Your task to perform on an android device: toggle notification dots Image 0: 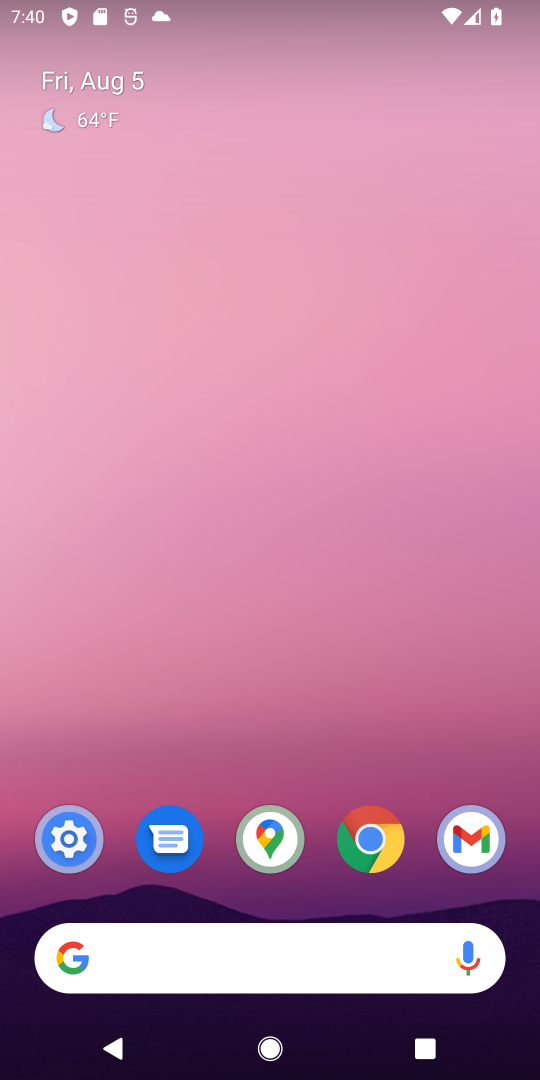
Step 0: drag from (324, 757) to (283, 185)
Your task to perform on an android device: toggle notification dots Image 1: 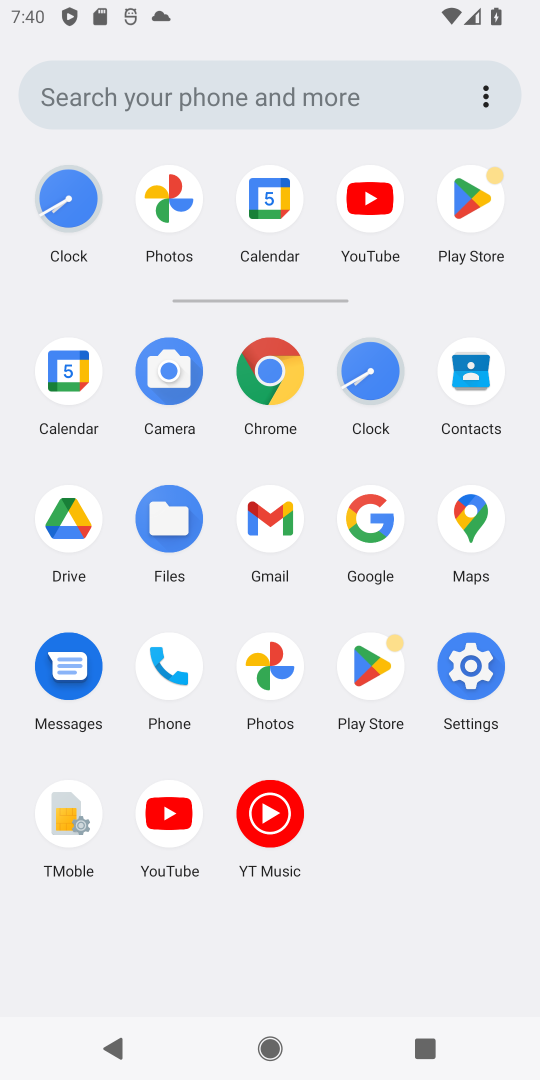
Step 1: click (474, 672)
Your task to perform on an android device: toggle notification dots Image 2: 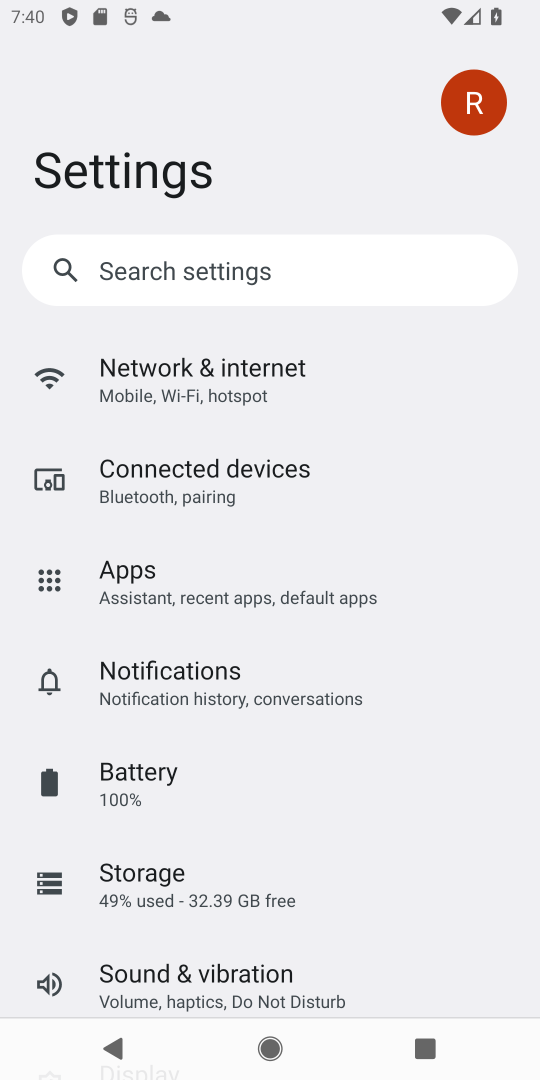
Step 2: click (149, 655)
Your task to perform on an android device: toggle notification dots Image 3: 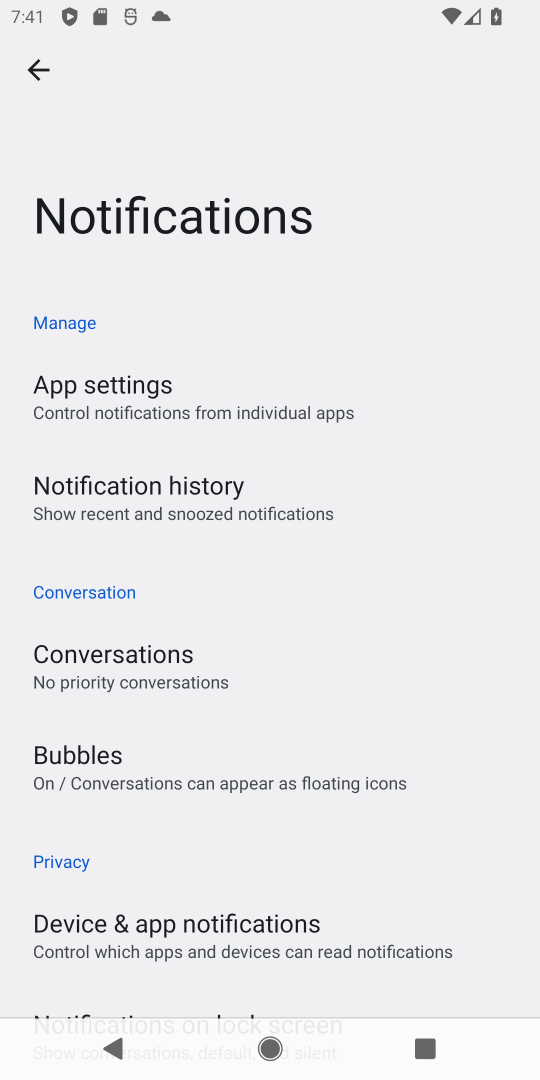
Step 3: drag from (157, 893) to (144, 358)
Your task to perform on an android device: toggle notification dots Image 4: 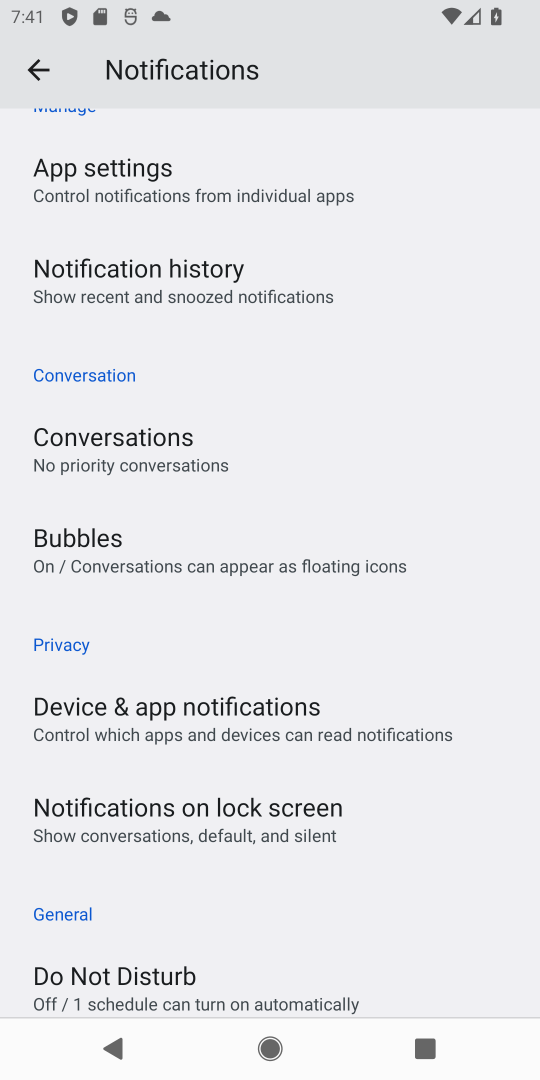
Step 4: drag from (173, 870) to (148, 480)
Your task to perform on an android device: toggle notification dots Image 5: 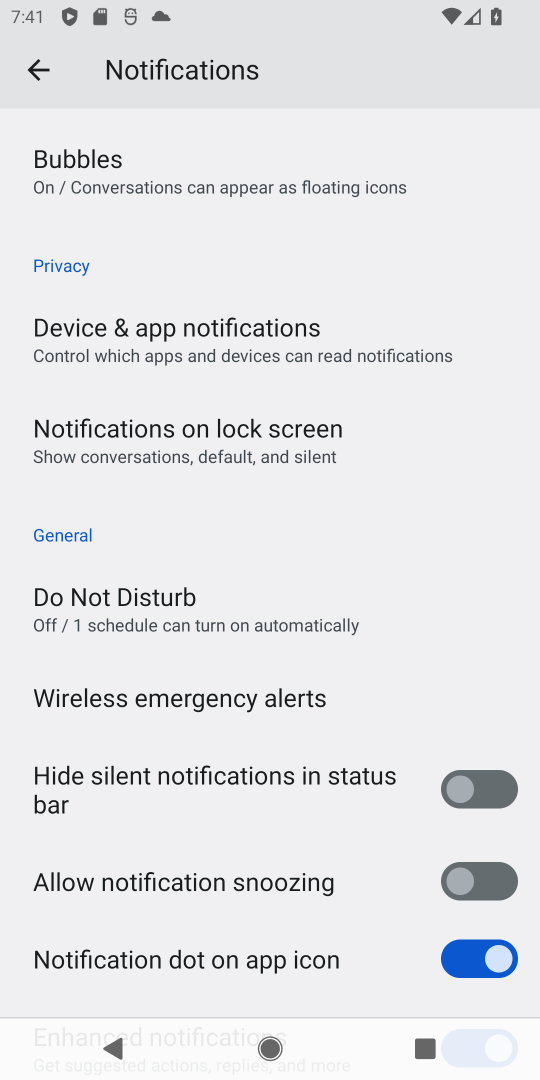
Step 5: click (462, 965)
Your task to perform on an android device: toggle notification dots Image 6: 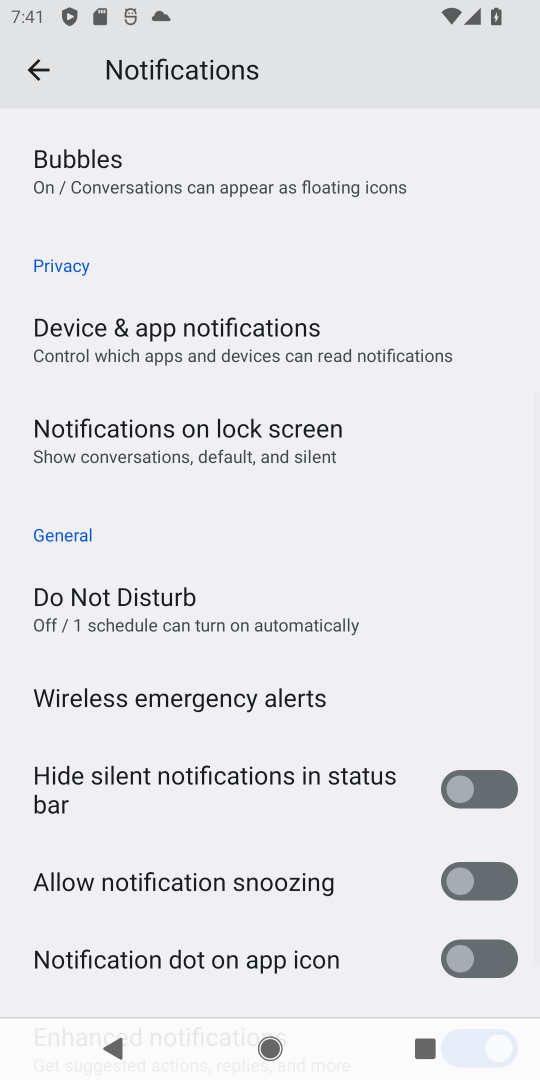
Step 6: task complete